Your task to perform on an android device: See recent photos Image 0: 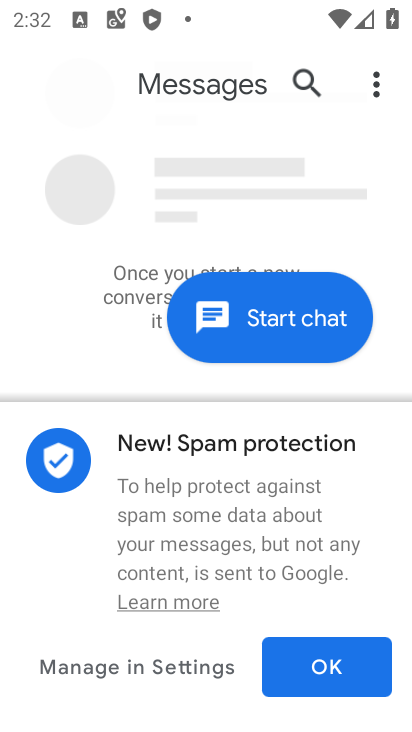
Step 0: press home button
Your task to perform on an android device: See recent photos Image 1: 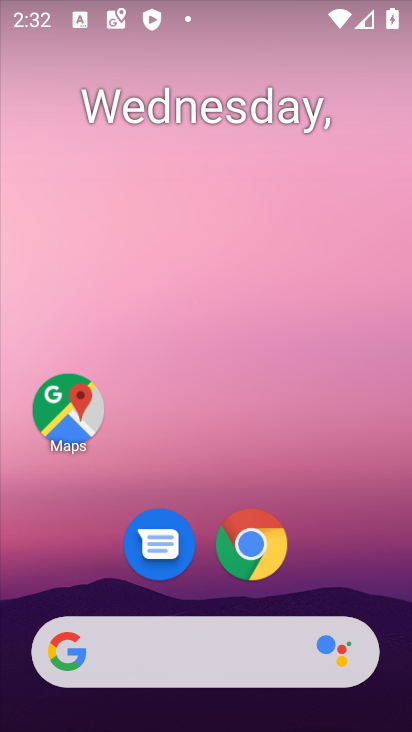
Step 1: drag from (394, 635) to (323, 275)
Your task to perform on an android device: See recent photos Image 2: 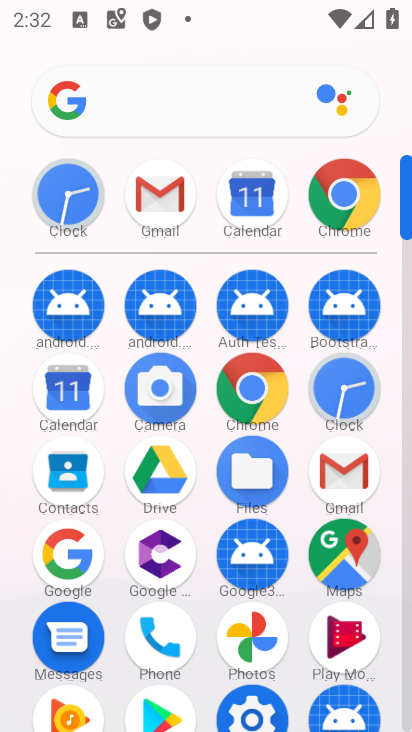
Step 2: click (406, 702)
Your task to perform on an android device: See recent photos Image 3: 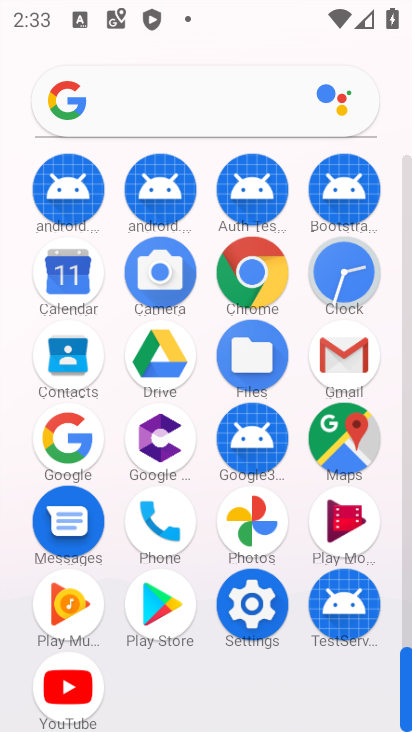
Step 3: click (252, 517)
Your task to perform on an android device: See recent photos Image 4: 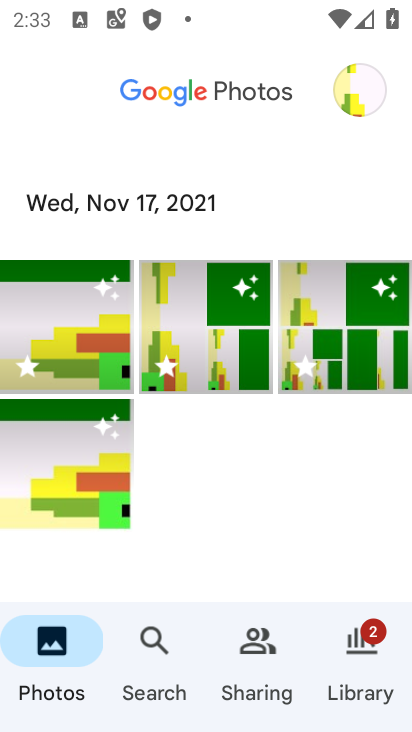
Step 4: task complete